Your task to perform on an android device: turn off notifications in google photos Image 0: 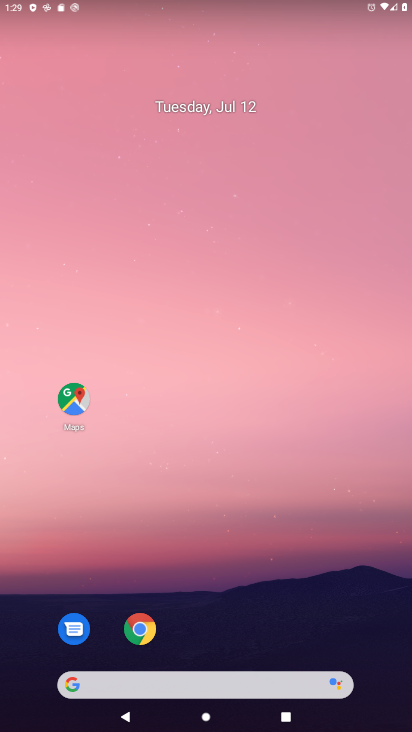
Step 0: drag from (305, 659) to (306, 57)
Your task to perform on an android device: turn off notifications in google photos Image 1: 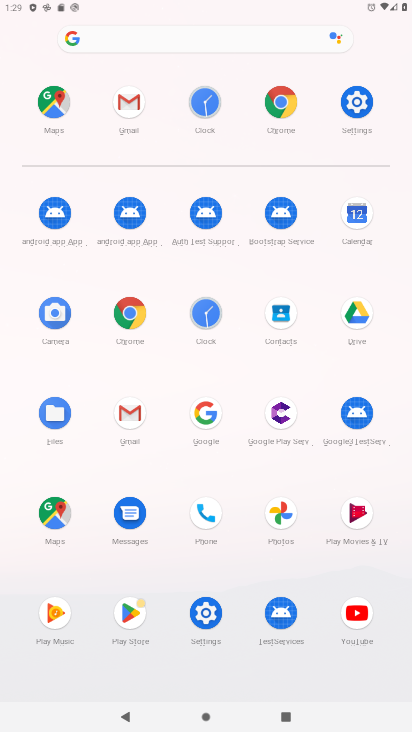
Step 1: click (273, 510)
Your task to perform on an android device: turn off notifications in google photos Image 2: 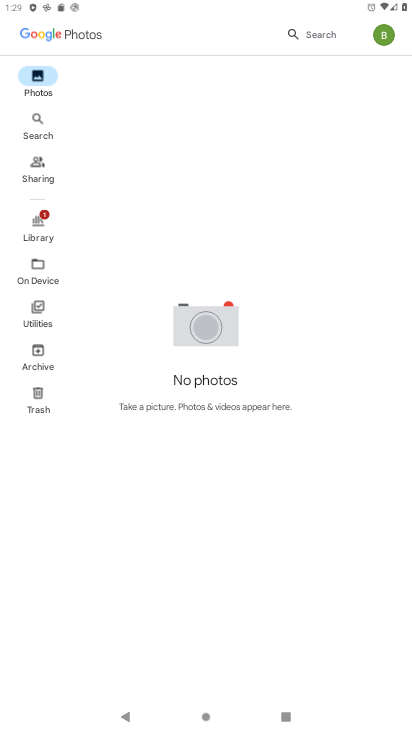
Step 2: click (383, 38)
Your task to perform on an android device: turn off notifications in google photos Image 3: 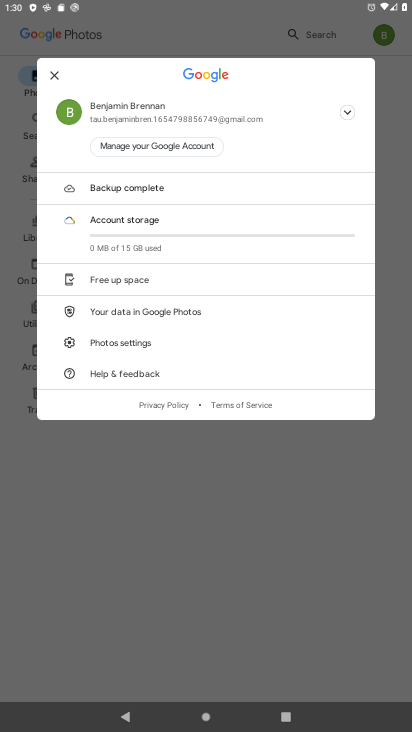
Step 3: click (140, 339)
Your task to perform on an android device: turn off notifications in google photos Image 4: 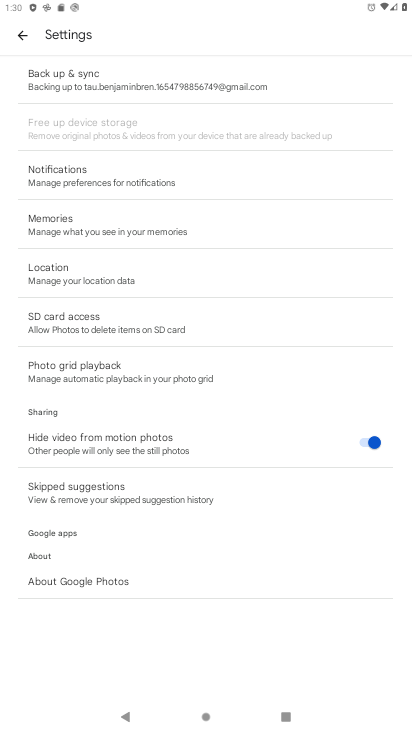
Step 4: click (109, 165)
Your task to perform on an android device: turn off notifications in google photos Image 5: 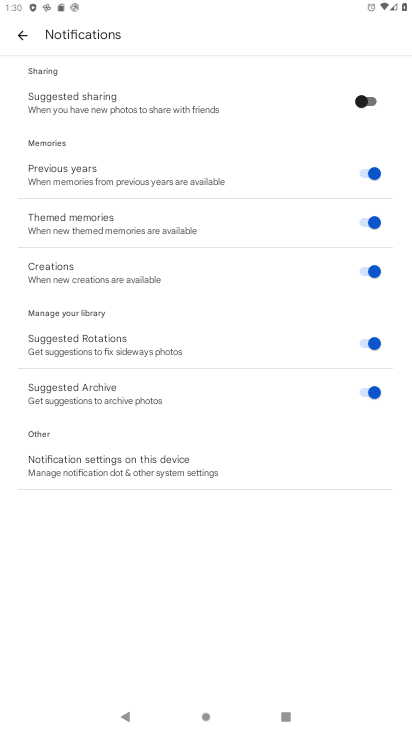
Step 5: click (122, 465)
Your task to perform on an android device: turn off notifications in google photos Image 6: 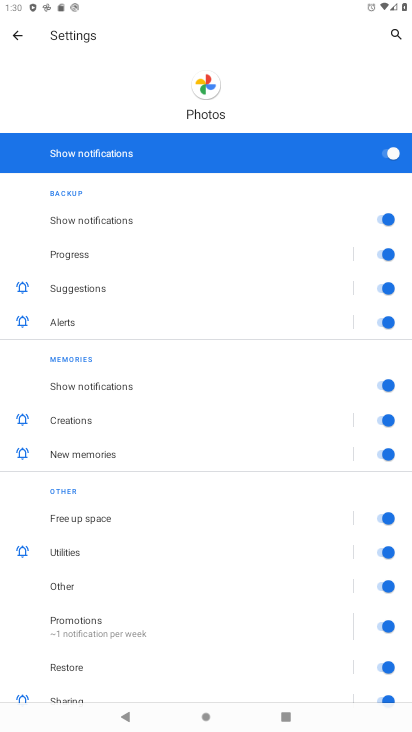
Step 6: click (383, 152)
Your task to perform on an android device: turn off notifications in google photos Image 7: 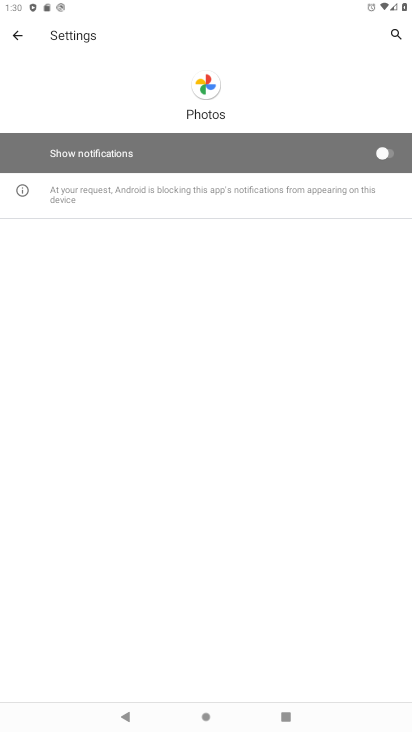
Step 7: task complete